Your task to perform on an android device: open app "Google Play Music" (install if not already installed) Image 0: 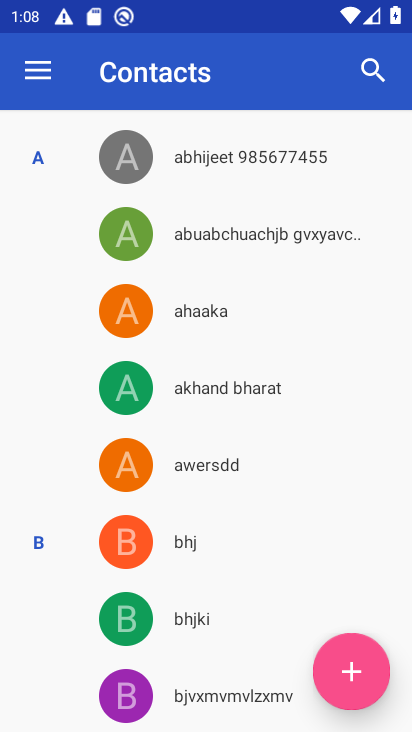
Step 0: press home button
Your task to perform on an android device: open app "Google Play Music" (install if not already installed) Image 1: 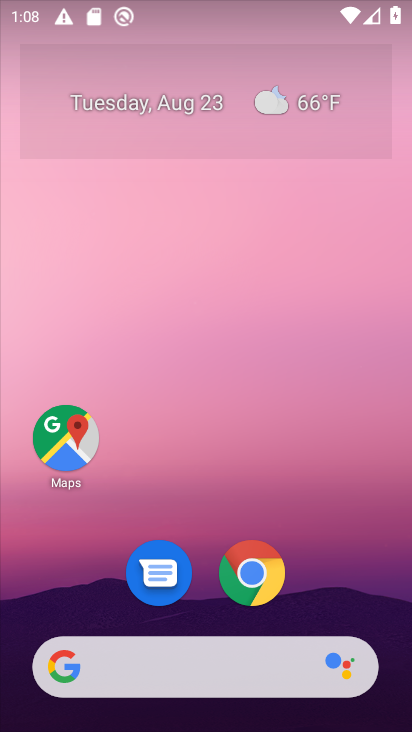
Step 1: drag from (202, 503) to (215, 148)
Your task to perform on an android device: open app "Google Play Music" (install if not already installed) Image 2: 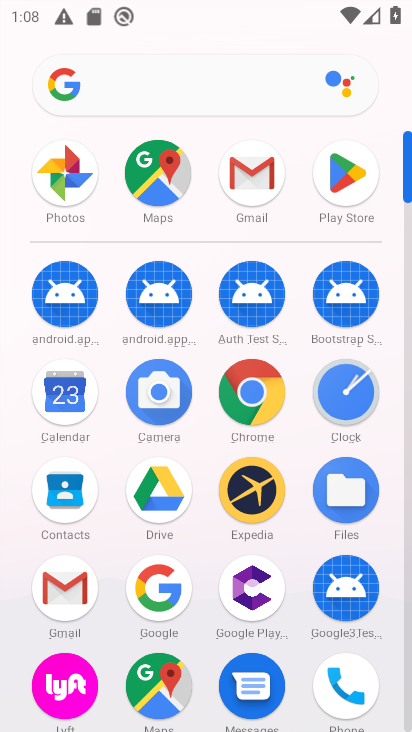
Step 2: click (334, 179)
Your task to perform on an android device: open app "Google Play Music" (install if not already installed) Image 3: 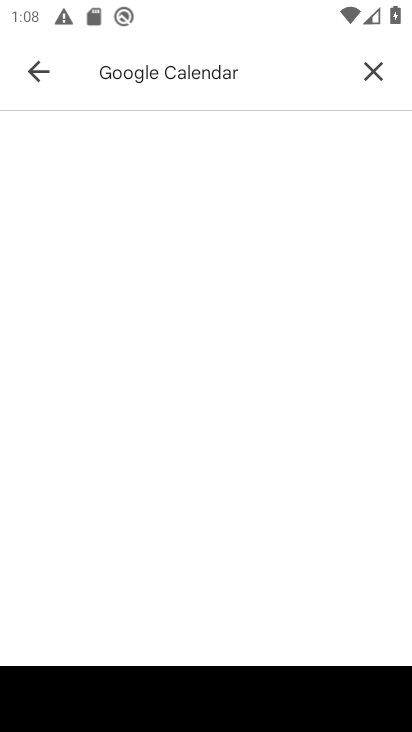
Step 3: click (364, 64)
Your task to perform on an android device: open app "Google Play Music" (install if not already installed) Image 4: 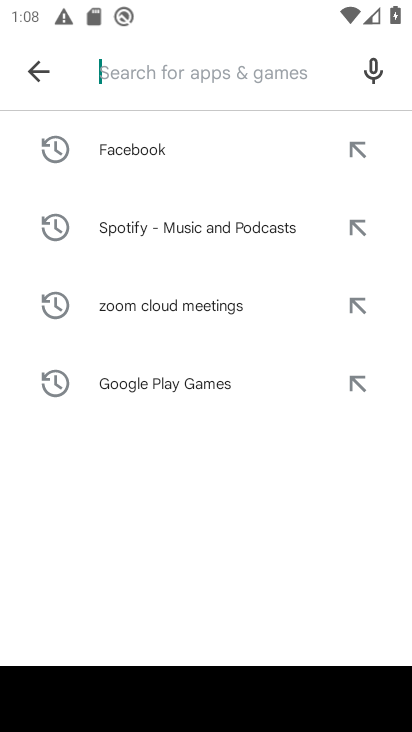
Step 4: type "Google Play Music"
Your task to perform on an android device: open app "Google Play Music" (install if not already installed) Image 5: 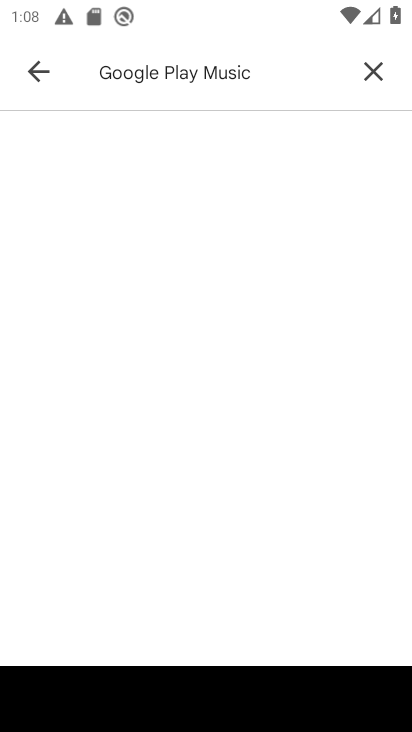
Step 5: task complete